Your task to perform on an android device: Open the stopwatch Image 0: 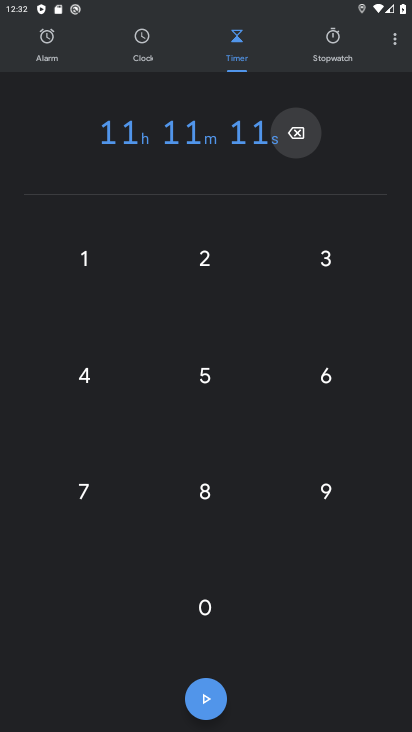
Step 0: press home button
Your task to perform on an android device: Open the stopwatch Image 1: 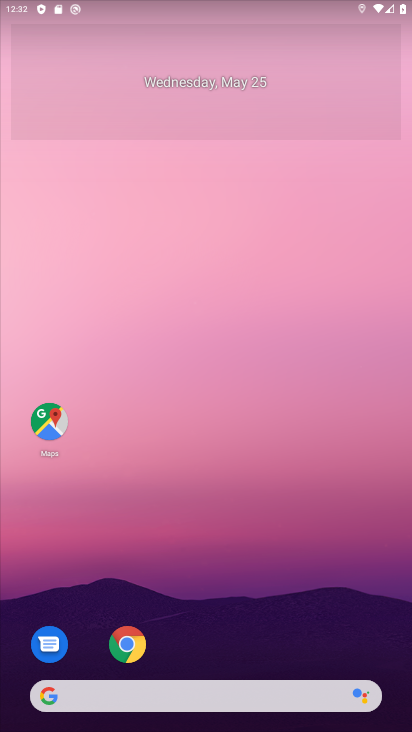
Step 1: drag from (234, 577) to (96, 44)
Your task to perform on an android device: Open the stopwatch Image 2: 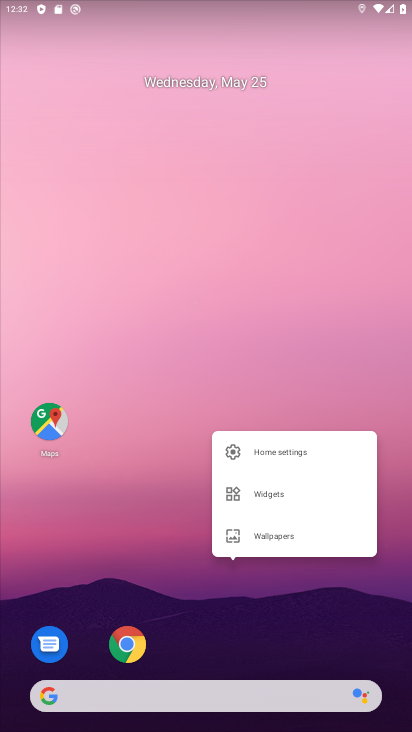
Step 2: click (194, 377)
Your task to perform on an android device: Open the stopwatch Image 3: 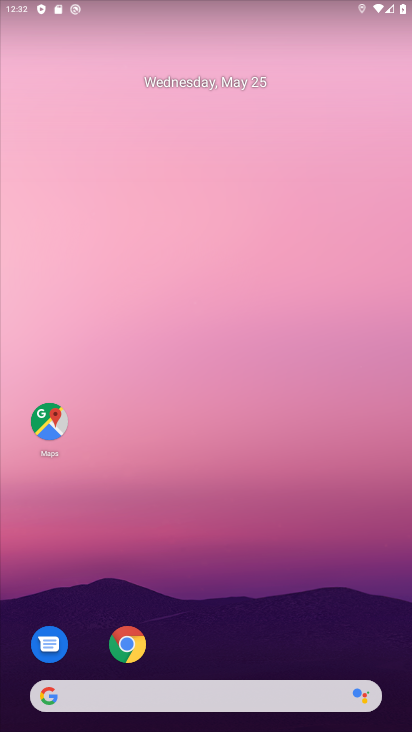
Step 3: drag from (216, 628) to (103, 29)
Your task to perform on an android device: Open the stopwatch Image 4: 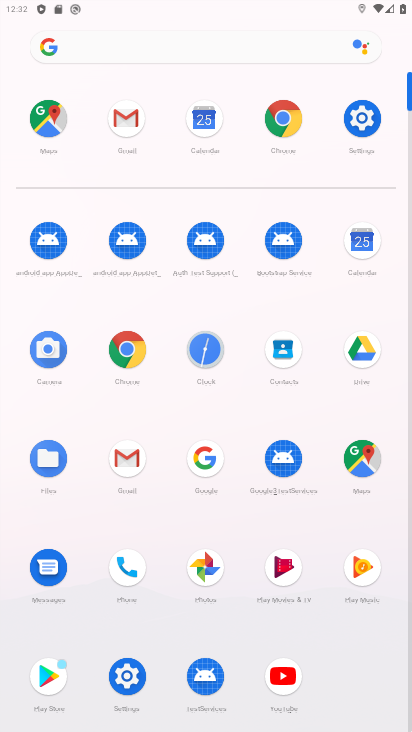
Step 4: click (205, 346)
Your task to perform on an android device: Open the stopwatch Image 5: 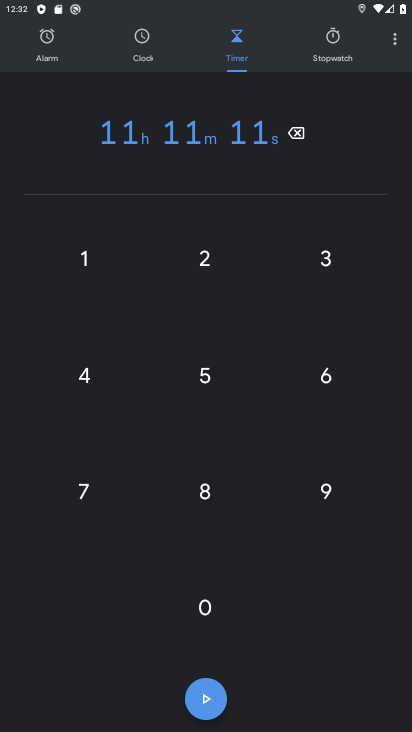
Step 5: click (332, 37)
Your task to perform on an android device: Open the stopwatch Image 6: 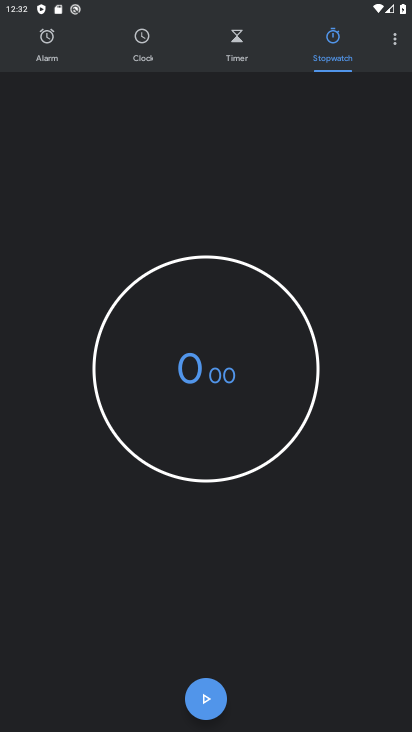
Step 6: task complete